Your task to perform on an android device: turn off picture-in-picture Image 0: 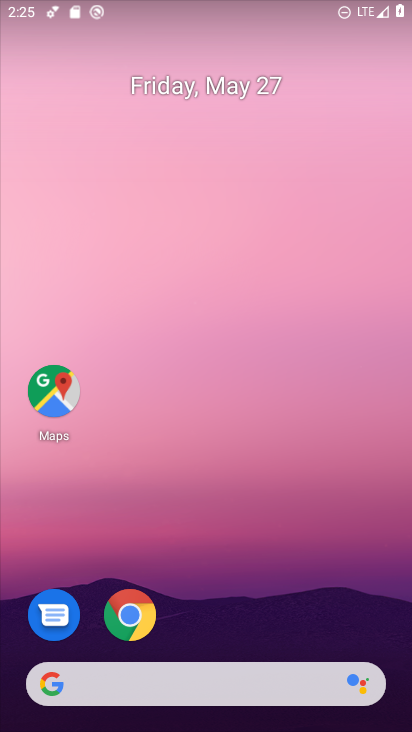
Step 0: drag from (275, 614) to (260, 224)
Your task to perform on an android device: turn off picture-in-picture Image 1: 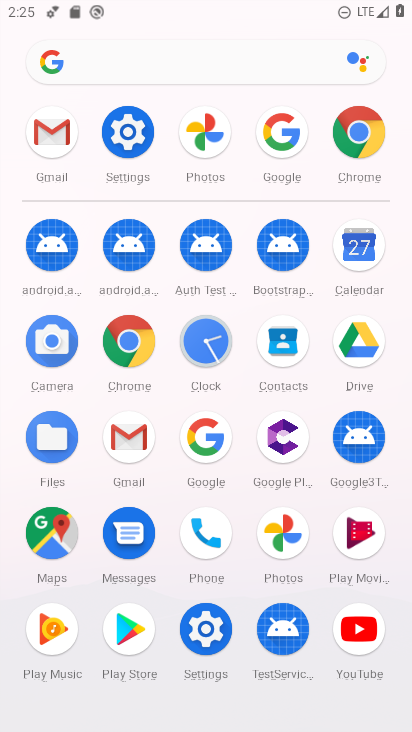
Step 1: click (218, 622)
Your task to perform on an android device: turn off picture-in-picture Image 2: 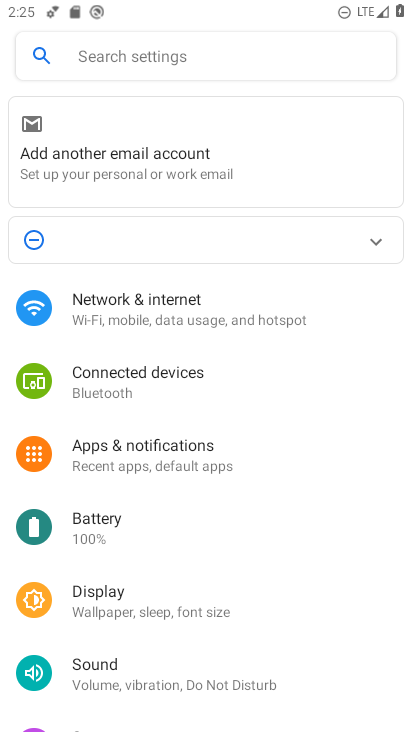
Step 2: click (218, 457)
Your task to perform on an android device: turn off picture-in-picture Image 3: 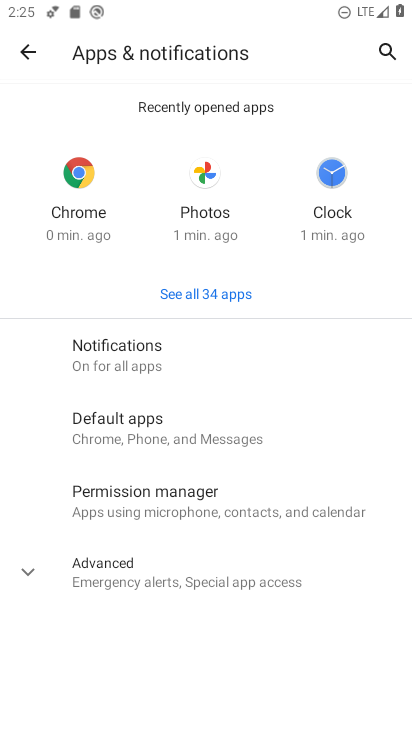
Step 3: click (156, 570)
Your task to perform on an android device: turn off picture-in-picture Image 4: 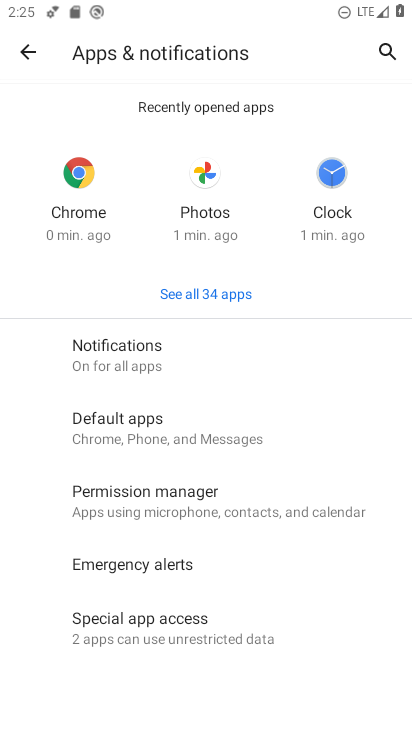
Step 4: click (160, 617)
Your task to perform on an android device: turn off picture-in-picture Image 5: 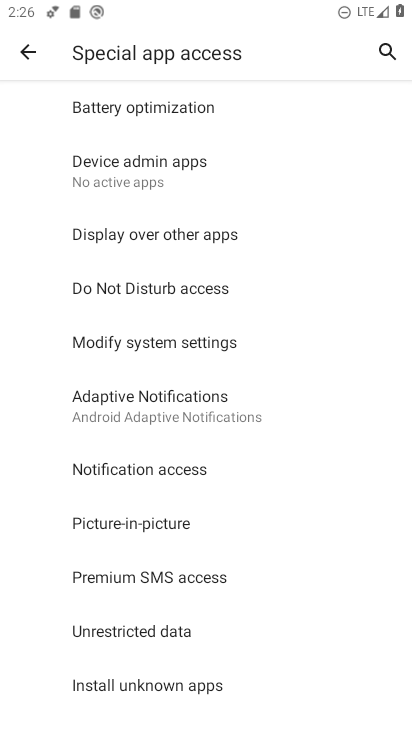
Step 5: click (171, 533)
Your task to perform on an android device: turn off picture-in-picture Image 6: 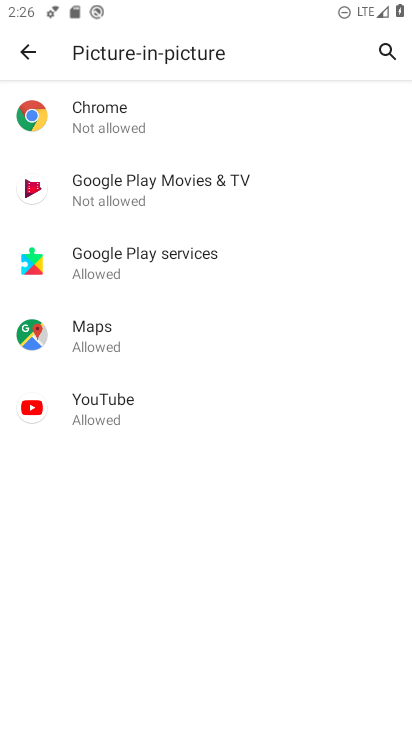
Step 6: click (163, 274)
Your task to perform on an android device: turn off picture-in-picture Image 7: 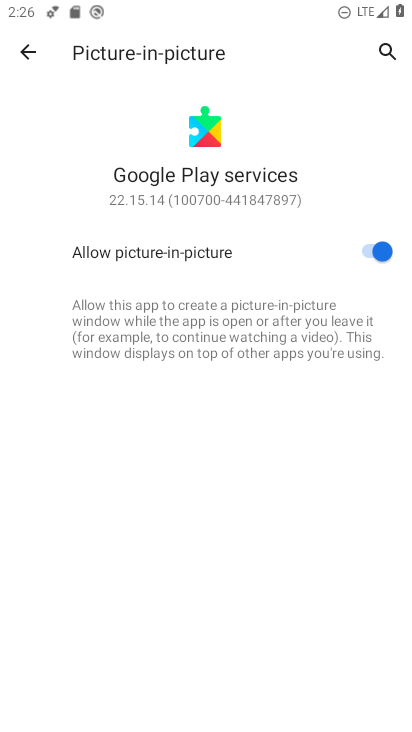
Step 7: click (383, 254)
Your task to perform on an android device: turn off picture-in-picture Image 8: 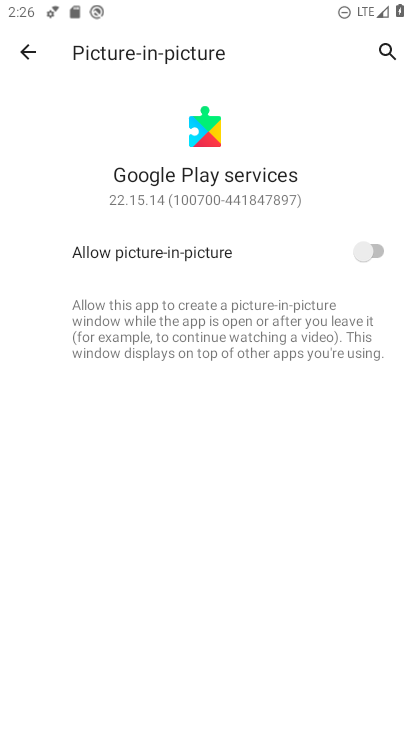
Step 8: task complete